Your task to perform on an android device: Empty the shopping cart on amazon.com. Search for macbook pro on amazon.com, select the first entry, and add it to the cart. Image 0: 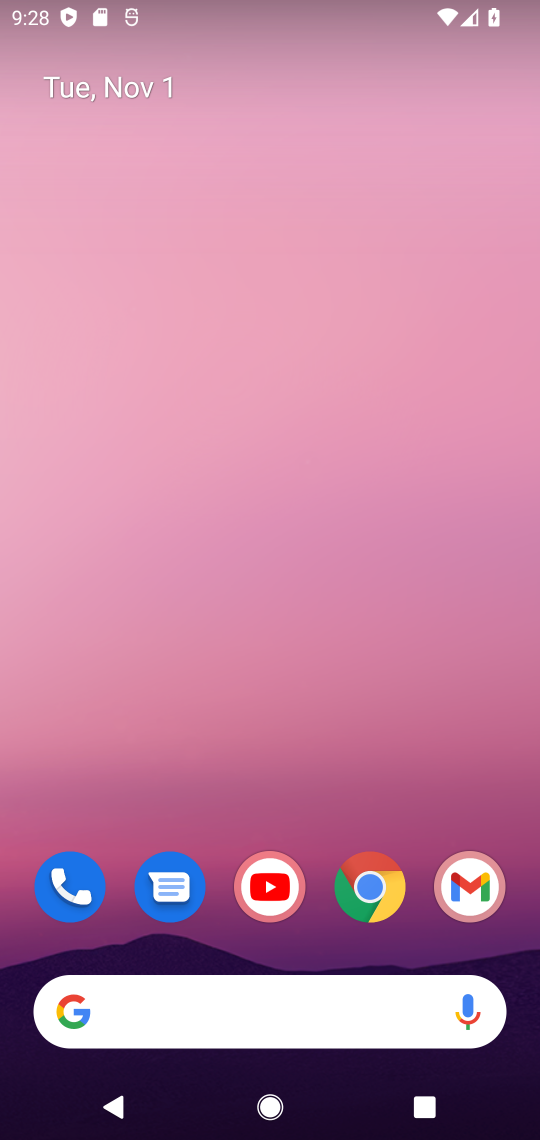
Step 0: click (379, 884)
Your task to perform on an android device: Empty the shopping cart on amazon.com. Search for macbook pro on amazon.com, select the first entry, and add it to the cart. Image 1: 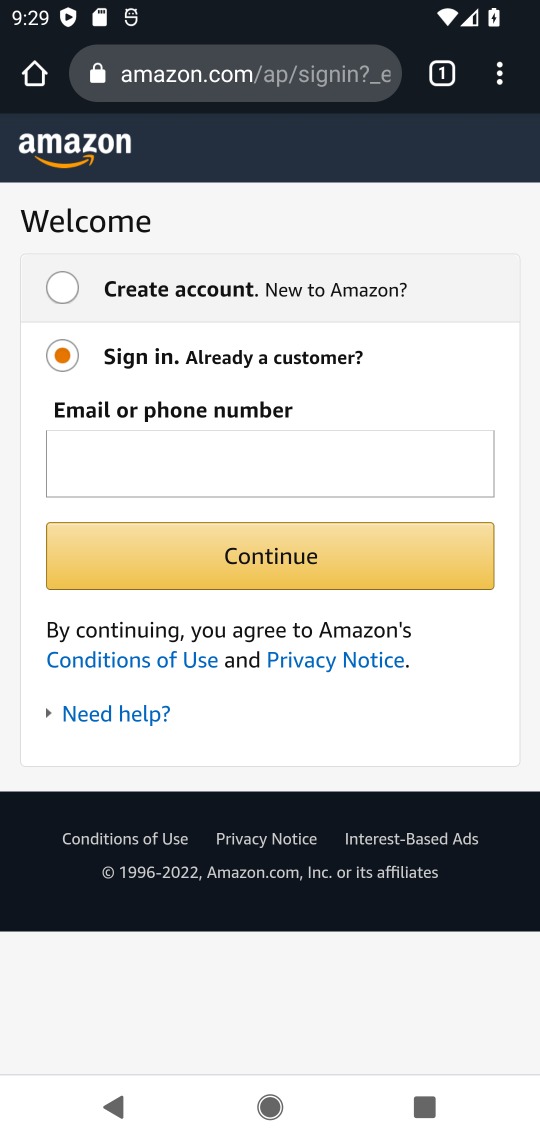
Step 1: click (251, 85)
Your task to perform on an android device: Empty the shopping cart on amazon.com. Search for macbook pro on amazon.com, select the first entry, and add it to the cart. Image 2: 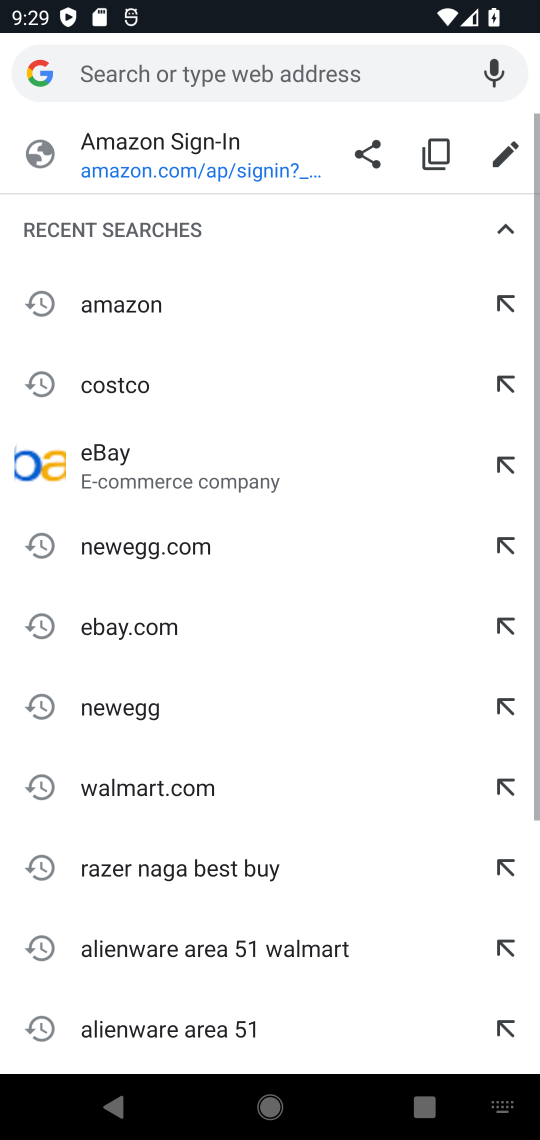
Step 2: click (232, 139)
Your task to perform on an android device: Empty the shopping cart on amazon.com. Search for macbook pro on amazon.com, select the first entry, and add it to the cart. Image 3: 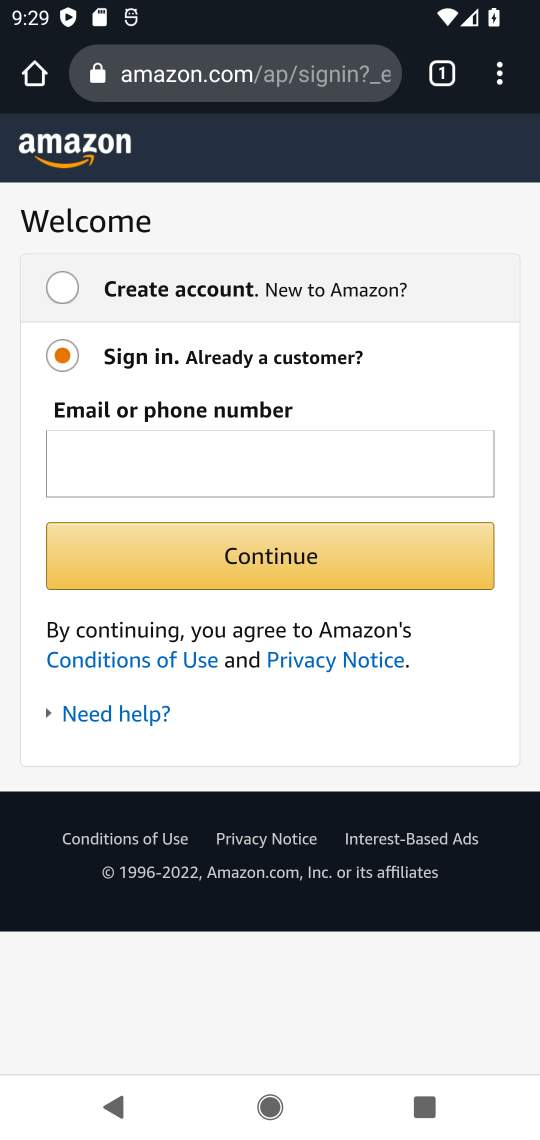
Step 3: press back button
Your task to perform on an android device: Empty the shopping cart on amazon.com. Search for macbook pro on amazon.com, select the first entry, and add it to the cart. Image 4: 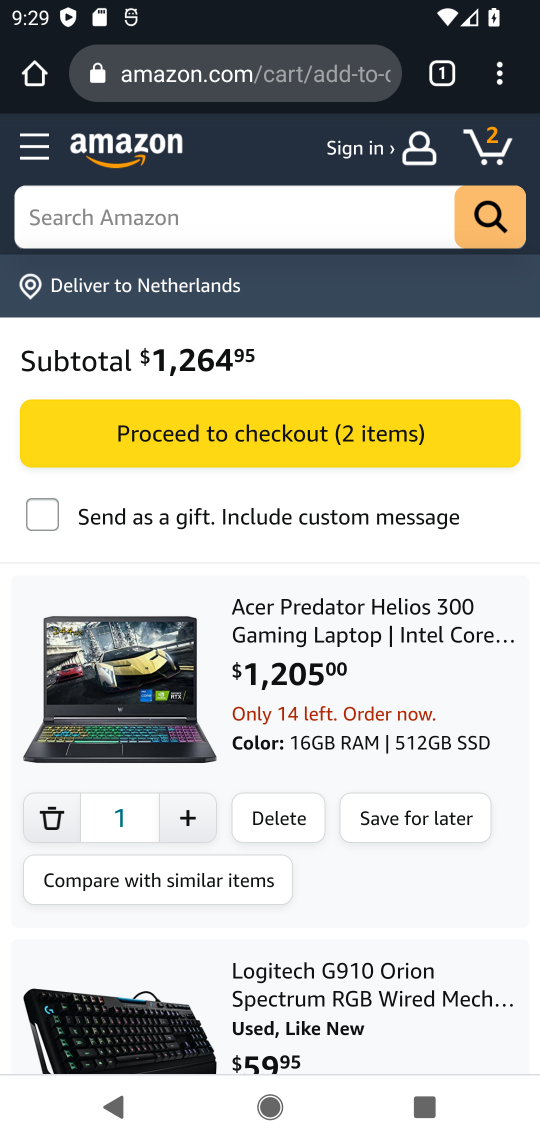
Step 4: click (484, 135)
Your task to perform on an android device: Empty the shopping cart on amazon.com. Search for macbook pro on amazon.com, select the first entry, and add it to the cart. Image 5: 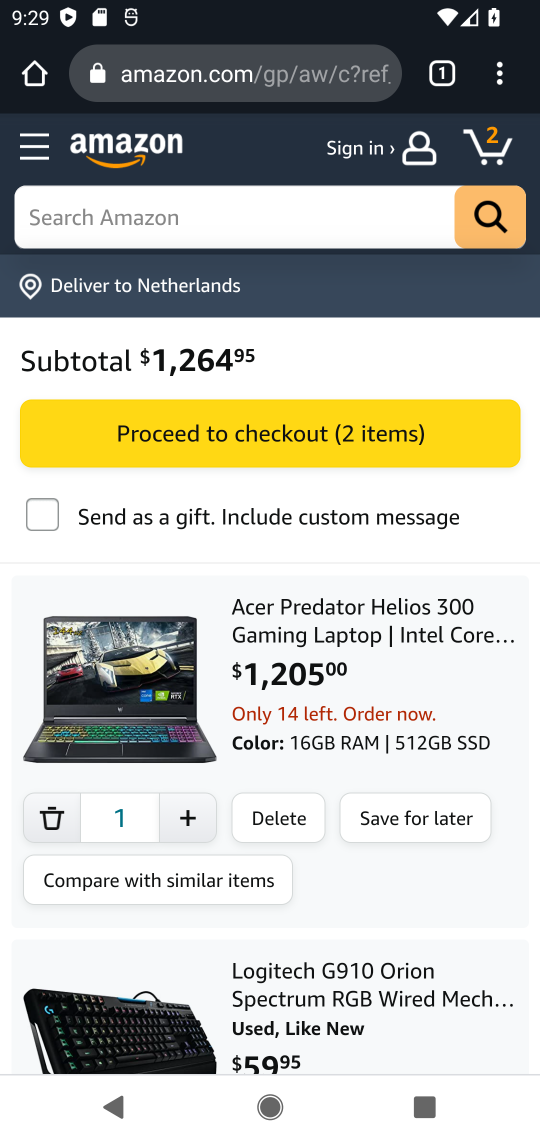
Step 5: click (294, 804)
Your task to perform on an android device: Empty the shopping cart on amazon.com. Search for macbook pro on amazon.com, select the first entry, and add it to the cart. Image 6: 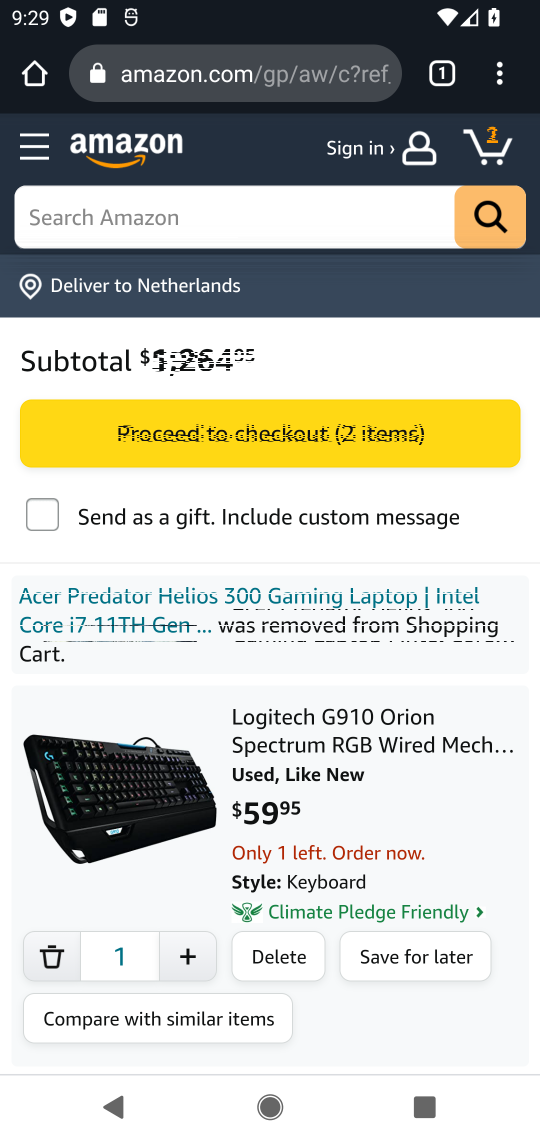
Step 6: click (275, 946)
Your task to perform on an android device: Empty the shopping cart on amazon.com. Search for macbook pro on amazon.com, select the first entry, and add it to the cart. Image 7: 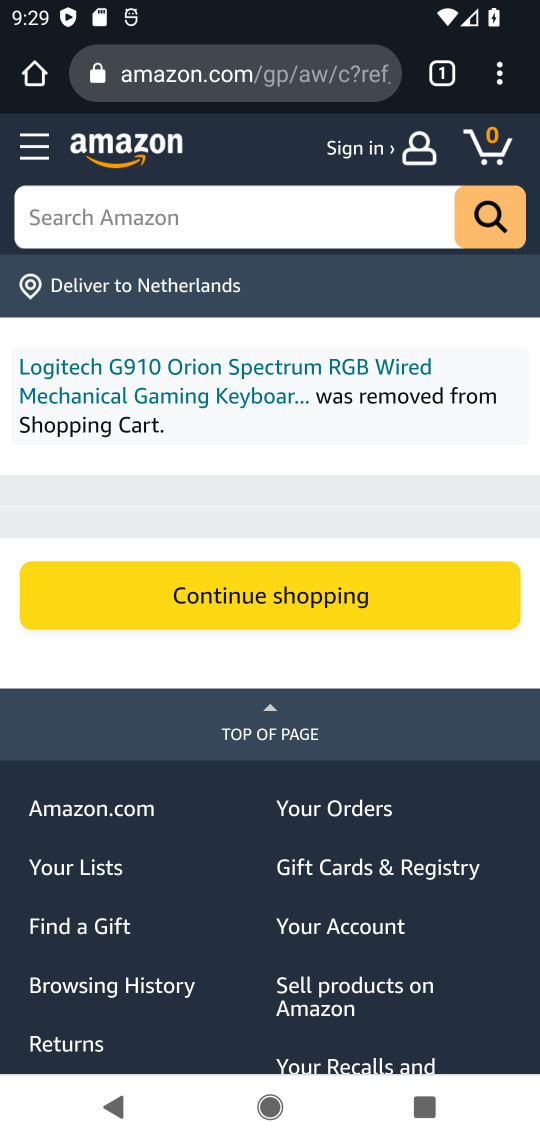
Step 7: click (363, 203)
Your task to perform on an android device: Empty the shopping cart on amazon.com. Search for macbook pro on amazon.com, select the first entry, and add it to the cart. Image 8: 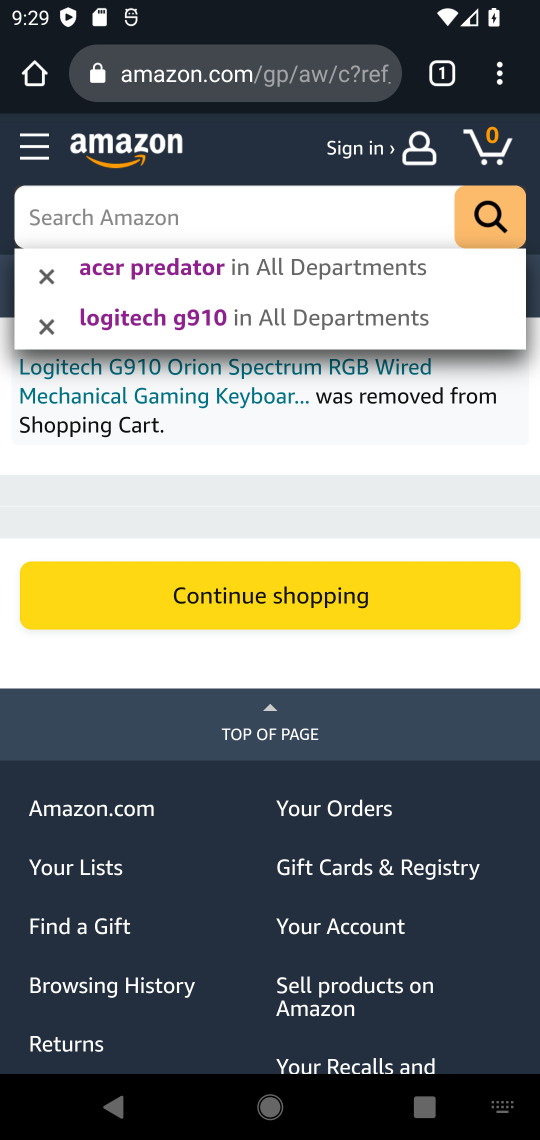
Step 8: type "macbook pro"
Your task to perform on an android device: Empty the shopping cart on amazon.com. Search for macbook pro on amazon.com, select the first entry, and add it to the cart. Image 9: 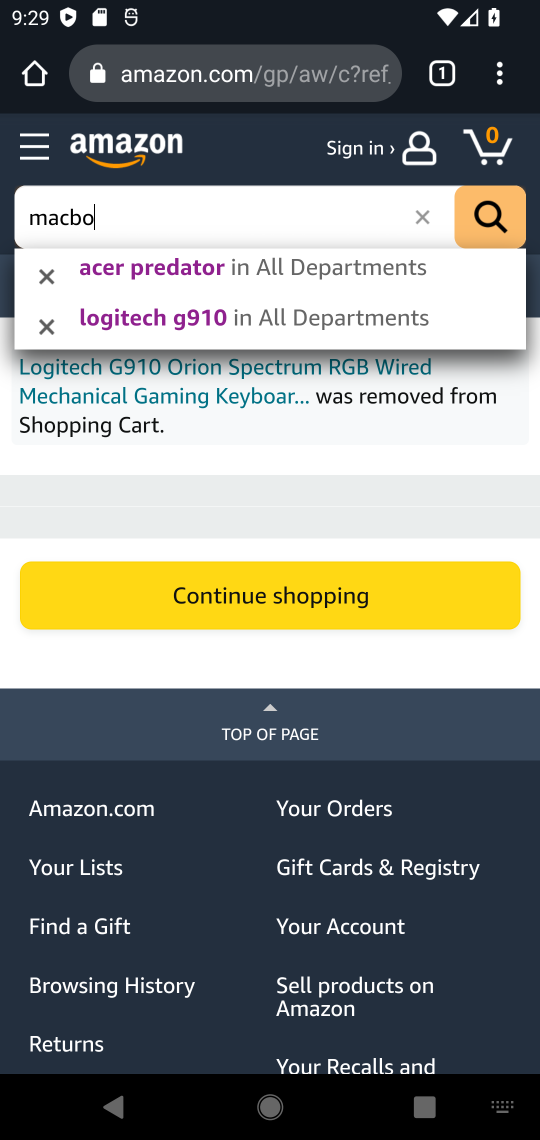
Step 9: press enter
Your task to perform on an android device: Empty the shopping cart on amazon.com. Search for macbook pro on amazon.com, select the first entry, and add it to the cart. Image 10: 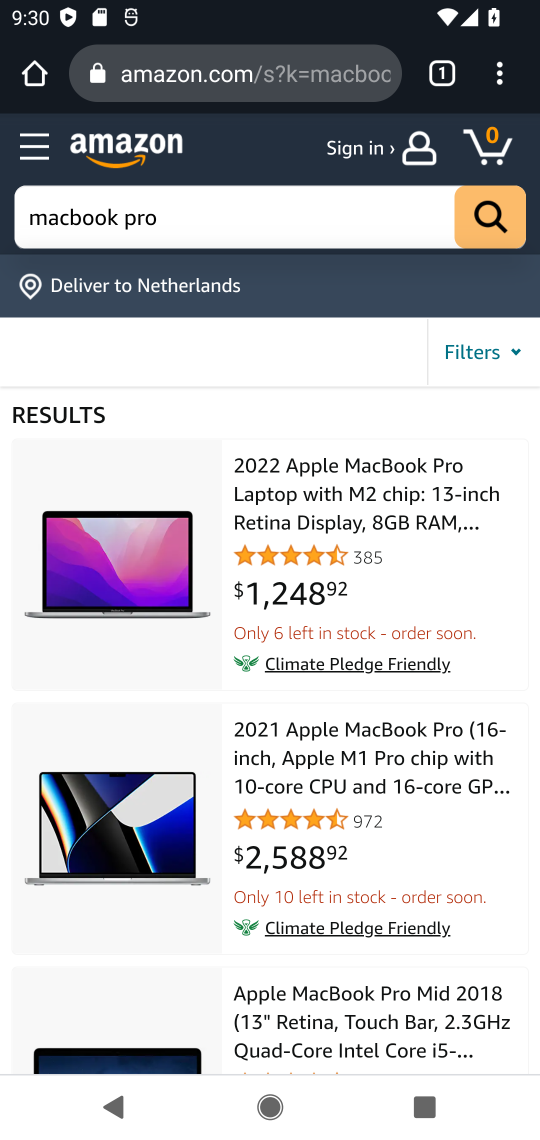
Step 10: click (156, 589)
Your task to perform on an android device: Empty the shopping cart on amazon.com. Search for macbook pro on amazon.com, select the first entry, and add it to the cart. Image 11: 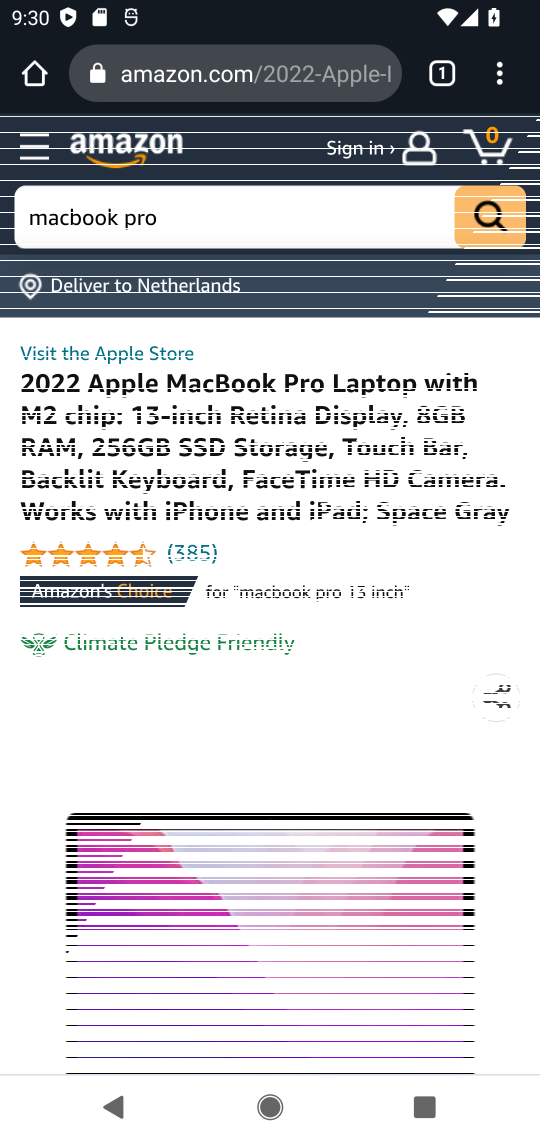
Step 11: drag from (383, 713) to (314, 241)
Your task to perform on an android device: Empty the shopping cart on amazon.com. Search for macbook pro on amazon.com, select the first entry, and add it to the cart. Image 12: 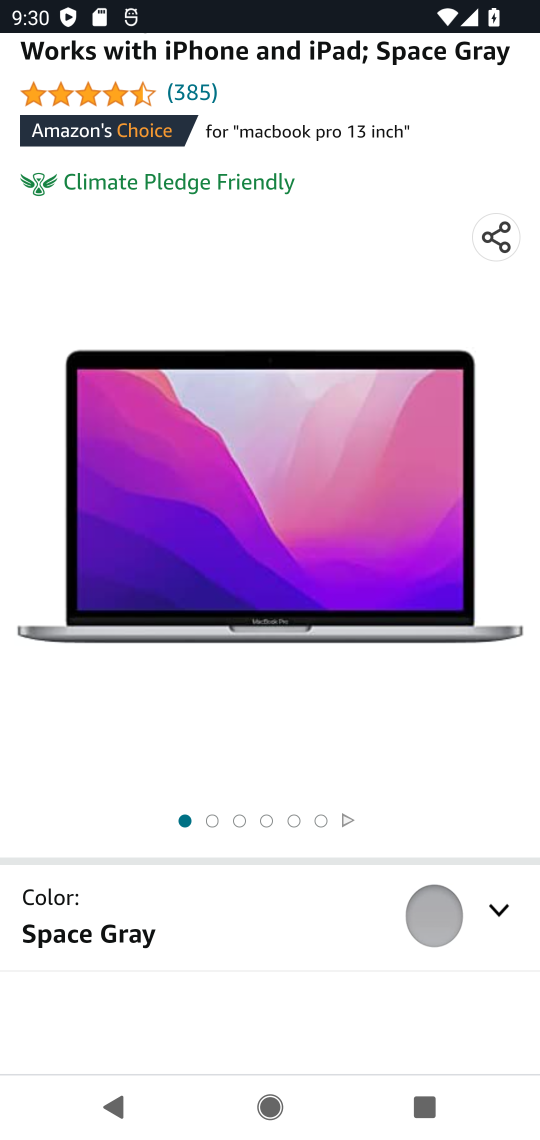
Step 12: drag from (344, 818) to (309, 350)
Your task to perform on an android device: Empty the shopping cart on amazon.com. Search for macbook pro on amazon.com, select the first entry, and add it to the cart. Image 13: 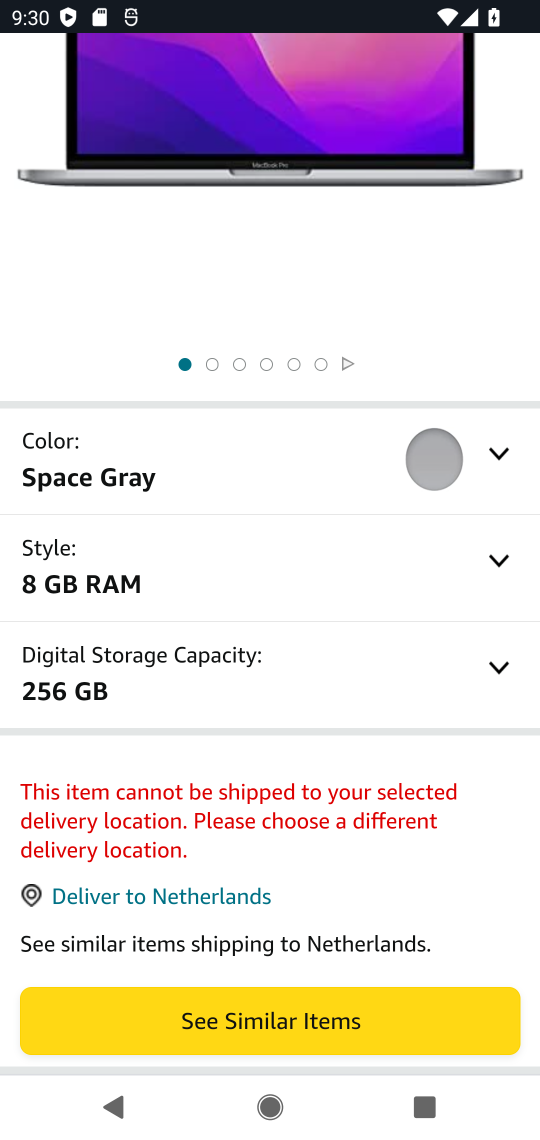
Step 13: drag from (334, 975) to (392, 552)
Your task to perform on an android device: Empty the shopping cart on amazon.com. Search for macbook pro on amazon.com, select the first entry, and add it to the cart. Image 14: 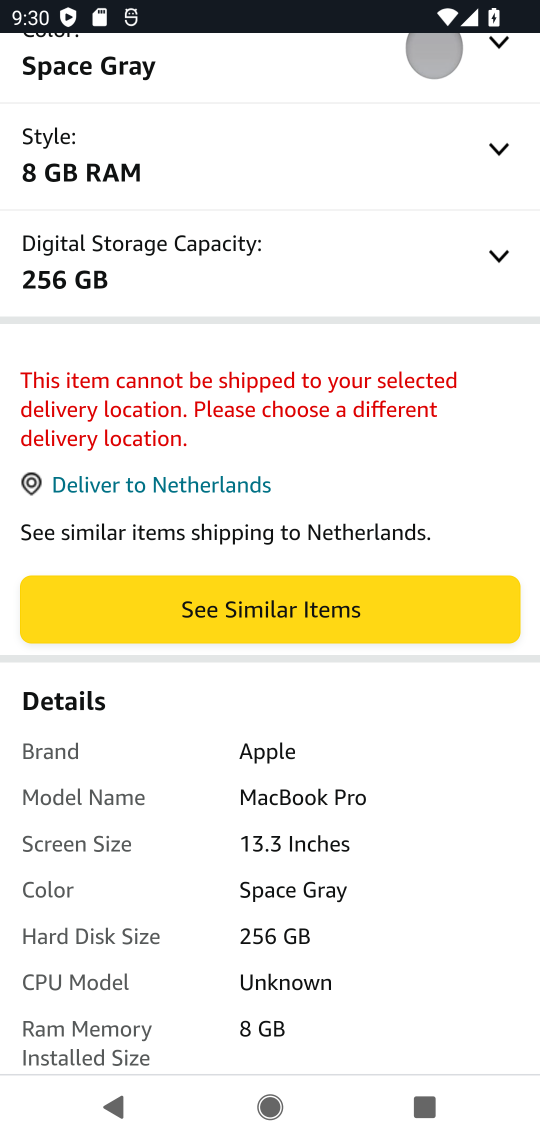
Step 14: drag from (323, 822) to (297, 383)
Your task to perform on an android device: Empty the shopping cart on amazon.com. Search for macbook pro on amazon.com, select the first entry, and add it to the cart. Image 15: 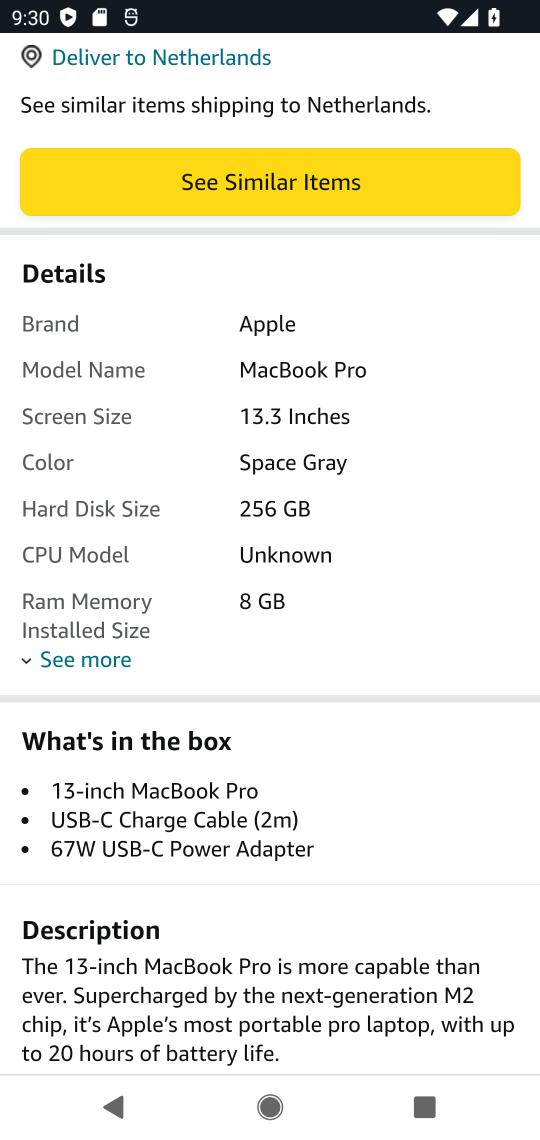
Step 15: drag from (360, 852) to (333, 440)
Your task to perform on an android device: Empty the shopping cart on amazon.com. Search for macbook pro on amazon.com, select the first entry, and add it to the cart. Image 16: 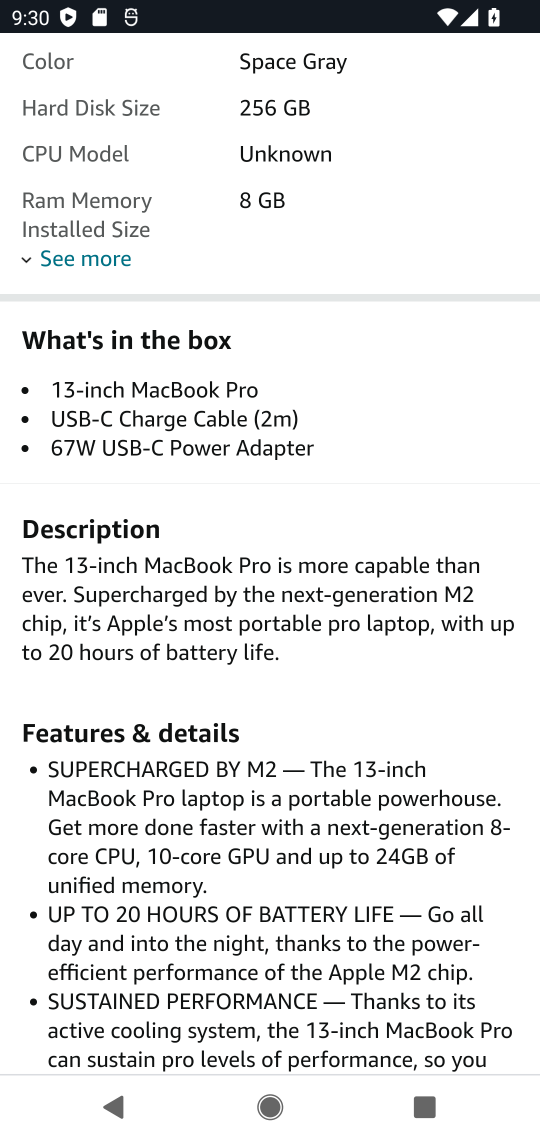
Step 16: drag from (296, 783) to (274, 330)
Your task to perform on an android device: Empty the shopping cart on amazon.com. Search for macbook pro on amazon.com, select the first entry, and add it to the cart. Image 17: 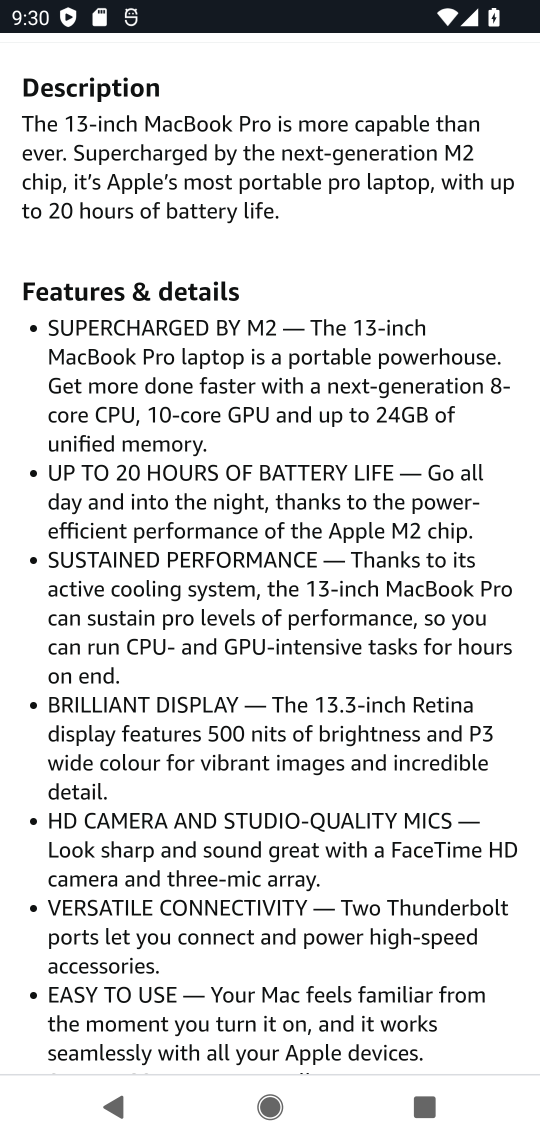
Step 17: drag from (306, 818) to (319, 355)
Your task to perform on an android device: Empty the shopping cart on amazon.com. Search for macbook pro on amazon.com, select the first entry, and add it to the cart. Image 18: 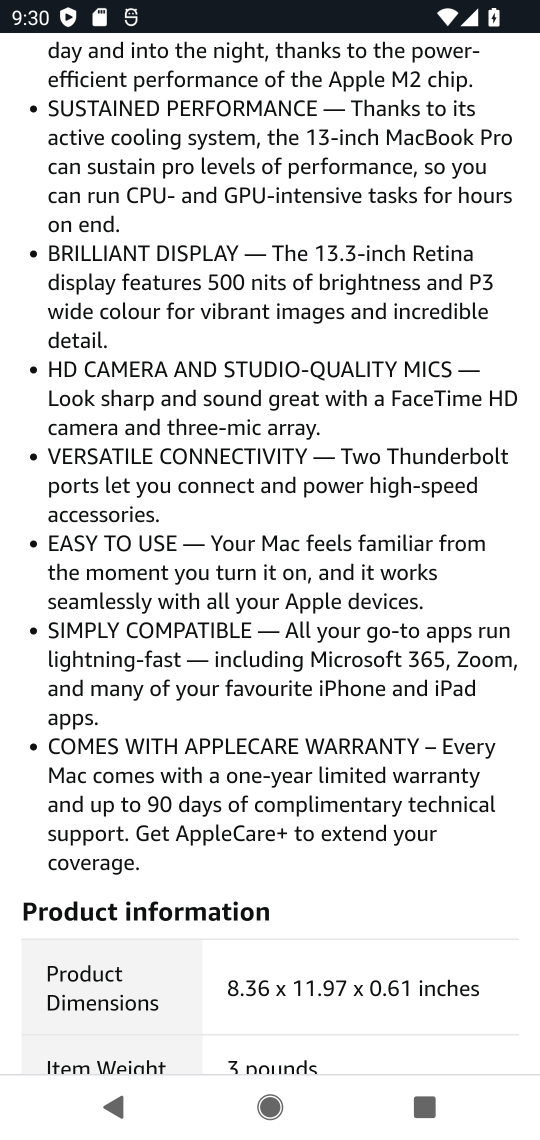
Step 18: drag from (307, 795) to (320, 407)
Your task to perform on an android device: Empty the shopping cart on amazon.com. Search for macbook pro on amazon.com, select the first entry, and add it to the cart. Image 19: 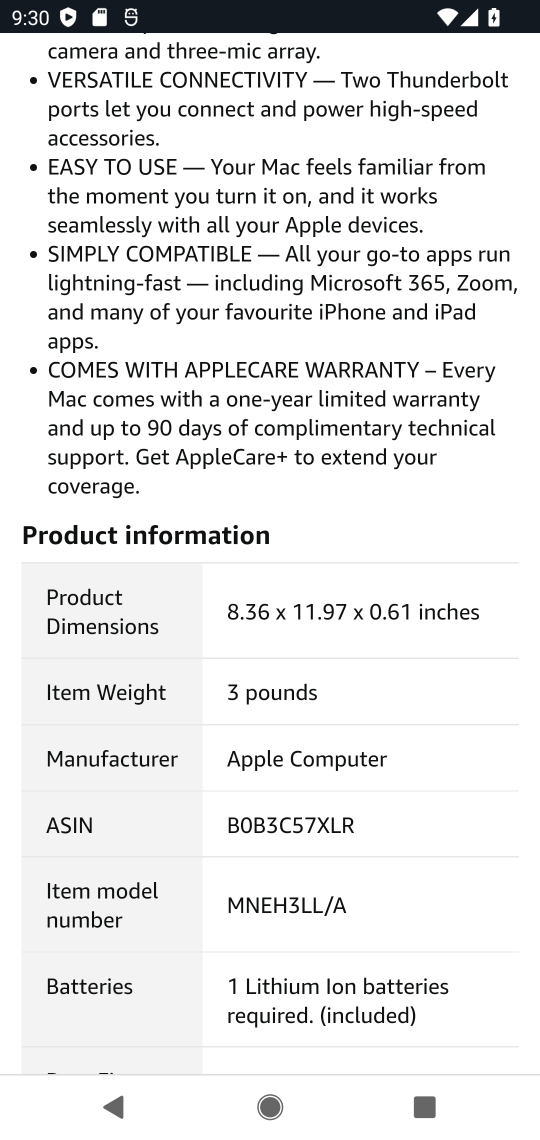
Step 19: drag from (289, 835) to (369, 257)
Your task to perform on an android device: Empty the shopping cart on amazon.com. Search for macbook pro on amazon.com, select the first entry, and add it to the cart. Image 20: 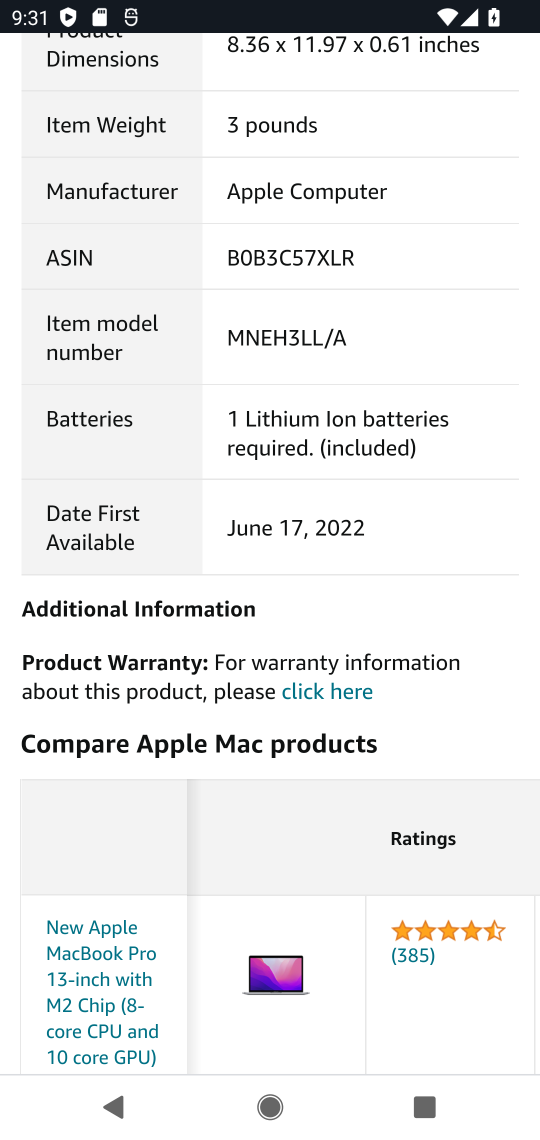
Step 20: drag from (372, 592) to (431, 230)
Your task to perform on an android device: Empty the shopping cart on amazon.com. Search for macbook pro on amazon.com, select the first entry, and add it to the cart. Image 21: 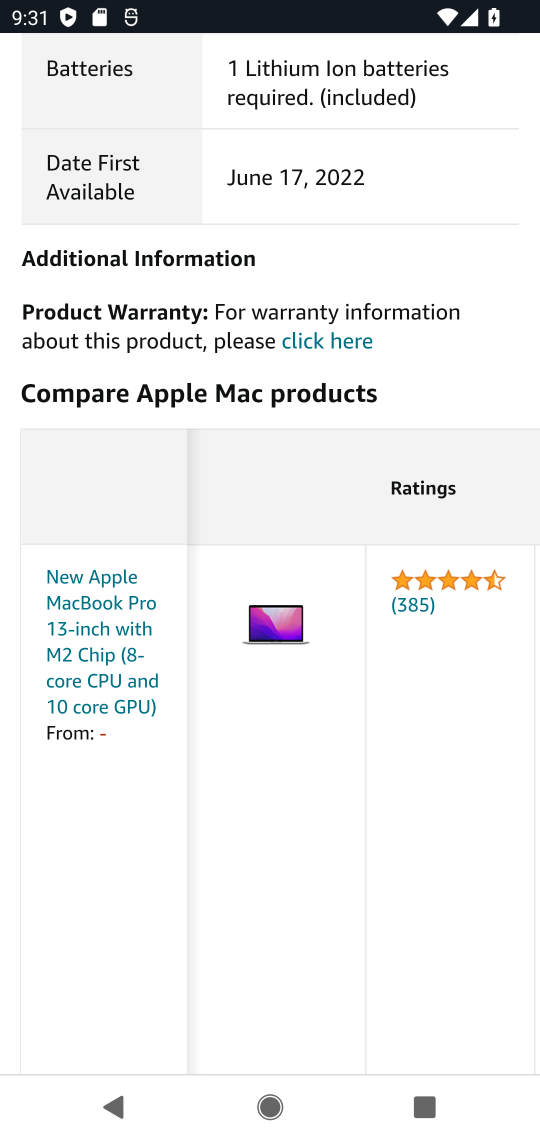
Step 21: drag from (336, 252) to (396, 793)
Your task to perform on an android device: Empty the shopping cart on amazon.com. Search for macbook pro on amazon.com, select the first entry, and add it to the cart. Image 22: 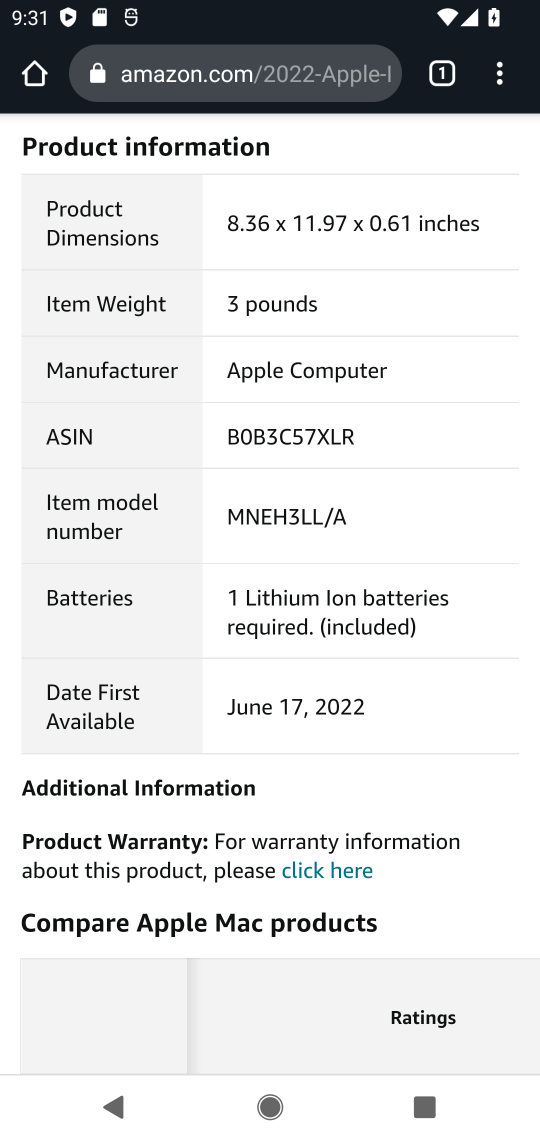
Step 22: drag from (370, 347) to (431, 744)
Your task to perform on an android device: Empty the shopping cart on amazon.com. Search for macbook pro on amazon.com, select the first entry, and add it to the cart. Image 23: 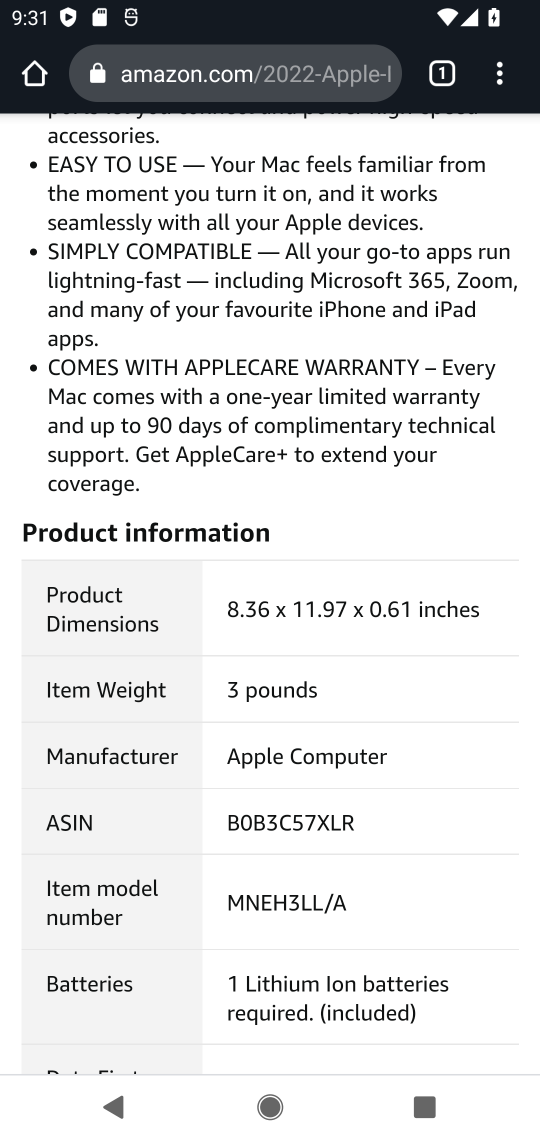
Step 23: drag from (243, 378) to (357, 811)
Your task to perform on an android device: Empty the shopping cart on amazon.com. Search for macbook pro on amazon.com, select the first entry, and add it to the cart. Image 24: 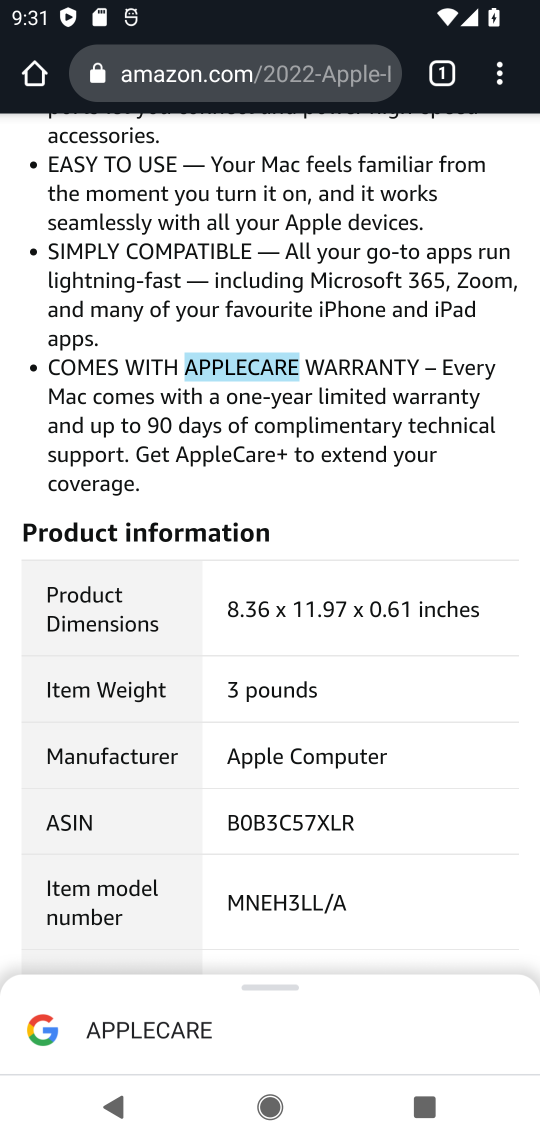
Step 24: drag from (332, 446) to (412, 807)
Your task to perform on an android device: Empty the shopping cart on amazon.com. Search for macbook pro on amazon.com, select the first entry, and add it to the cart. Image 25: 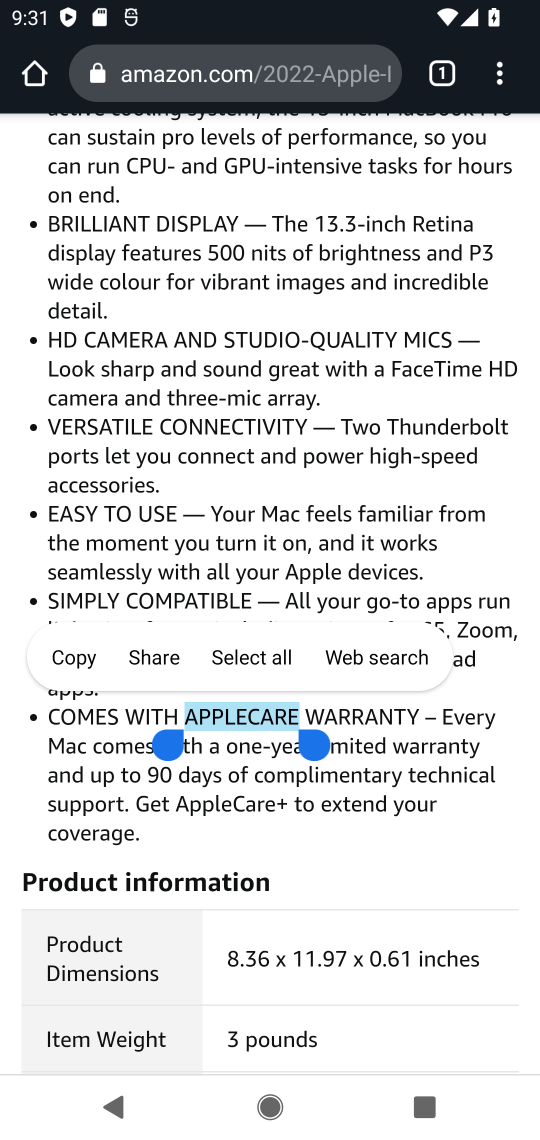
Step 25: drag from (309, 277) to (379, 782)
Your task to perform on an android device: Empty the shopping cart on amazon.com. Search for macbook pro on amazon.com, select the first entry, and add it to the cart. Image 26: 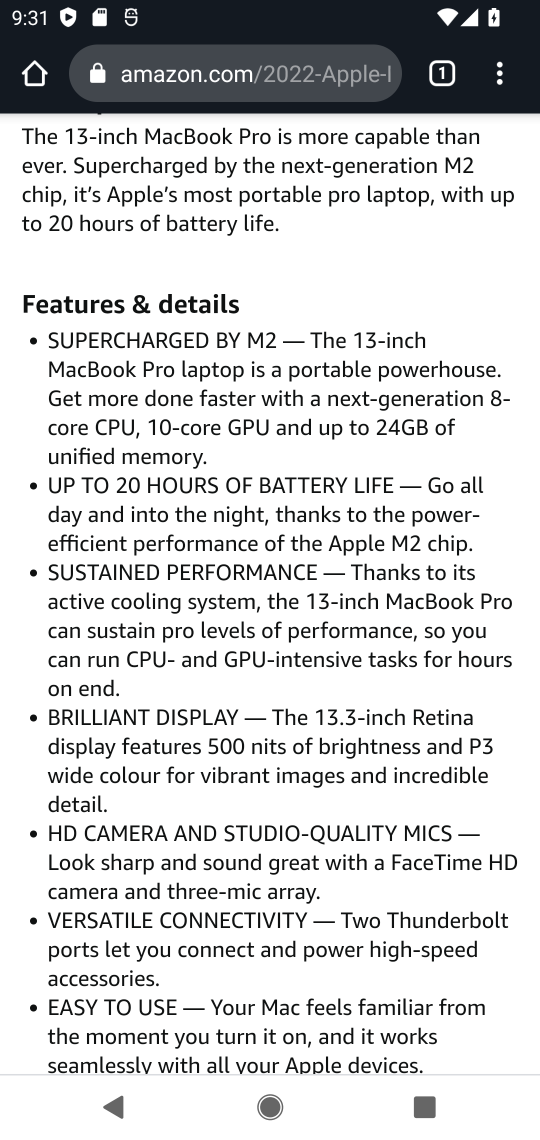
Step 26: drag from (357, 268) to (382, 618)
Your task to perform on an android device: Empty the shopping cart on amazon.com. Search for macbook pro on amazon.com, select the first entry, and add it to the cart. Image 27: 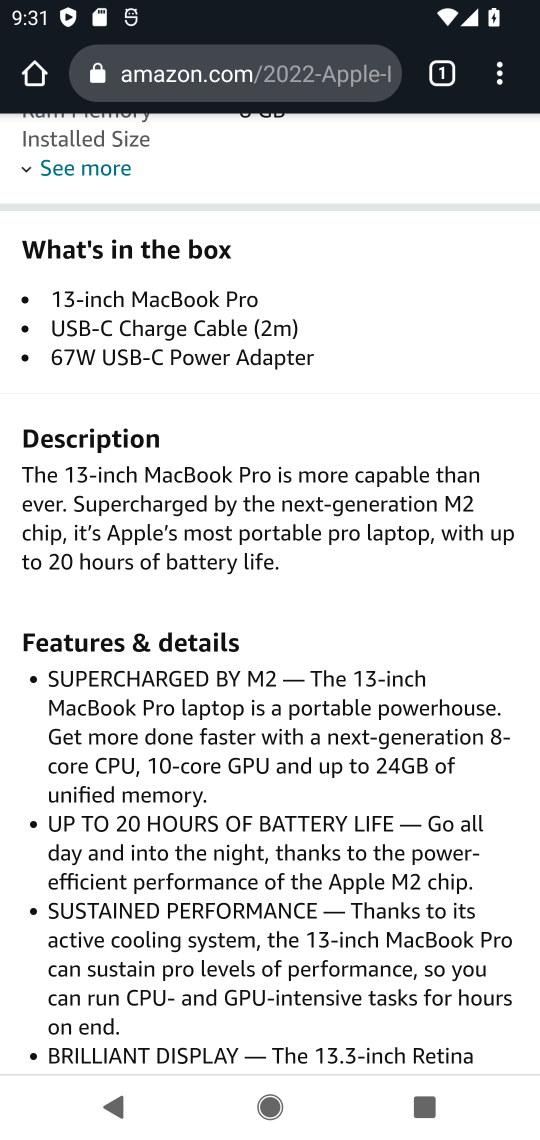
Step 27: drag from (361, 404) to (448, 842)
Your task to perform on an android device: Empty the shopping cart on amazon.com. Search for macbook pro on amazon.com, select the first entry, and add it to the cart. Image 28: 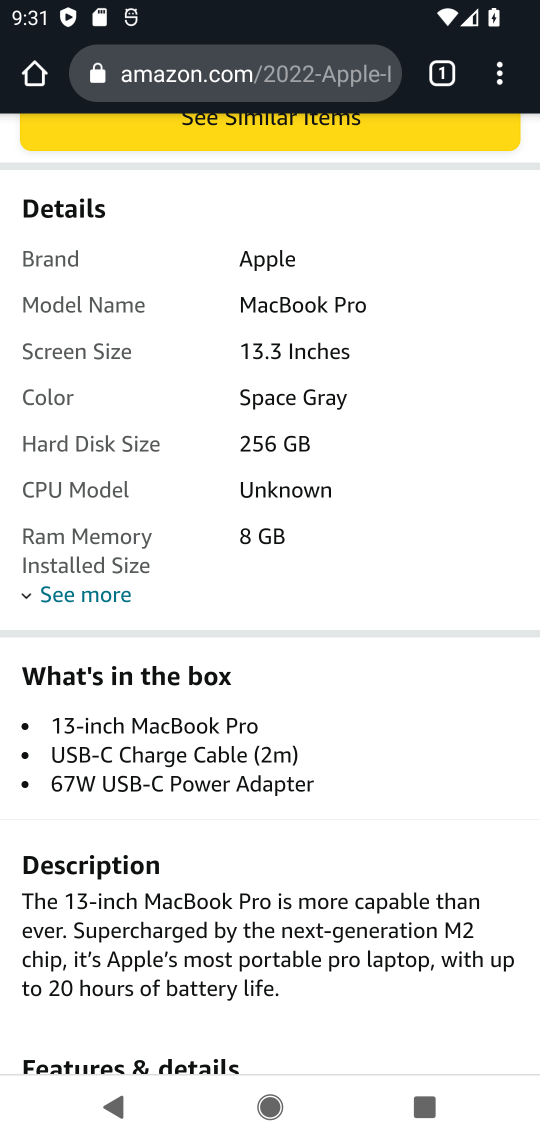
Step 28: drag from (336, 285) to (283, 730)
Your task to perform on an android device: Empty the shopping cart on amazon.com. Search for macbook pro on amazon.com, select the first entry, and add it to the cart. Image 29: 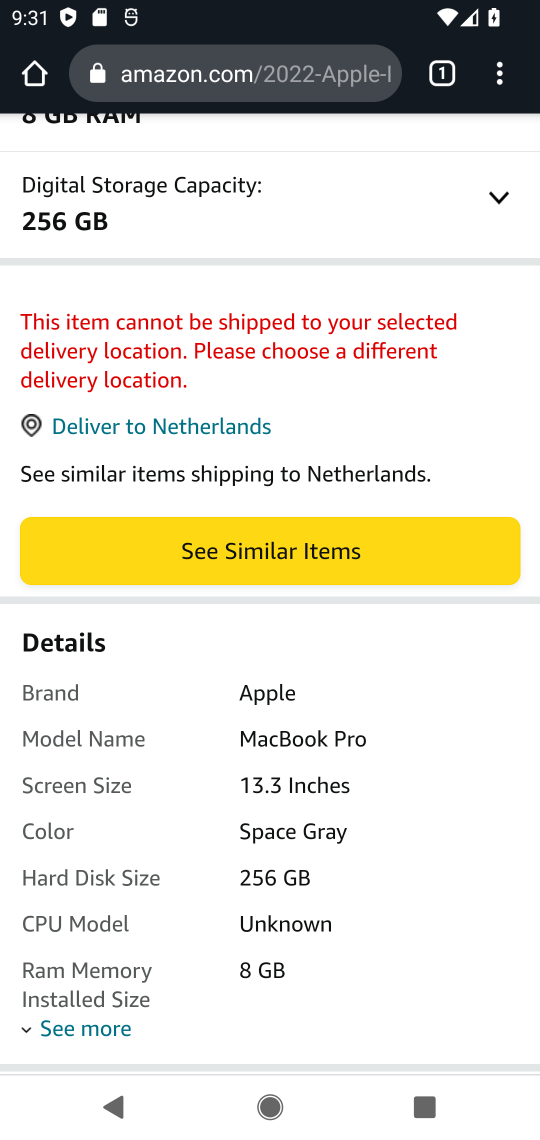
Step 29: drag from (368, 358) to (354, 850)
Your task to perform on an android device: Empty the shopping cart on amazon.com. Search for macbook pro on amazon.com, select the first entry, and add it to the cart. Image 30: 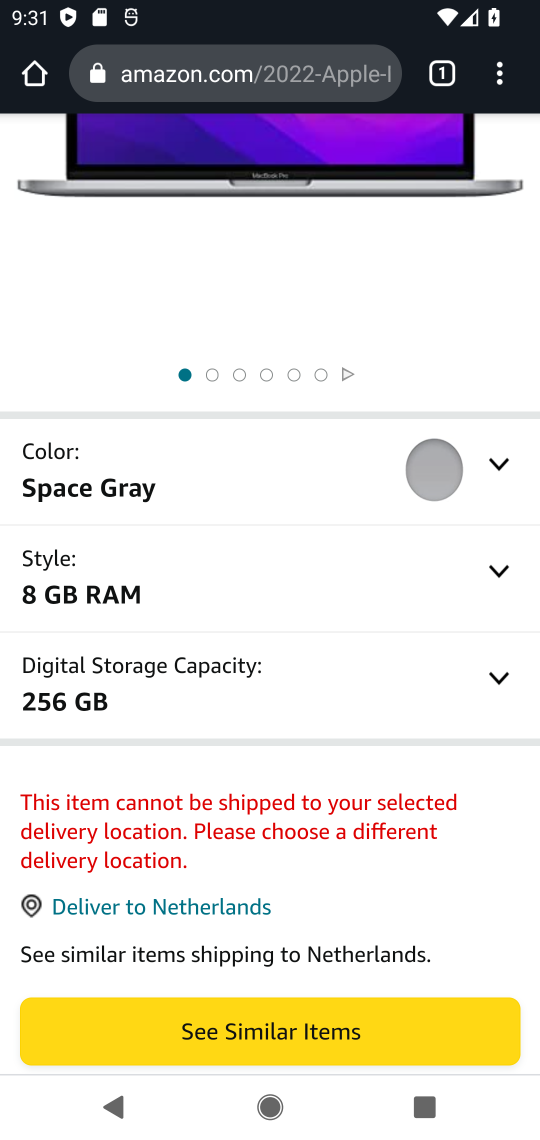
Step 30: drag from (376, 272) to (389, 900)
Your task to perform on an android device: Empty the shopping cart on amazon.com. Search for macbook pro on amazon.com, select the first entry, and add it to the cart. Image 31: 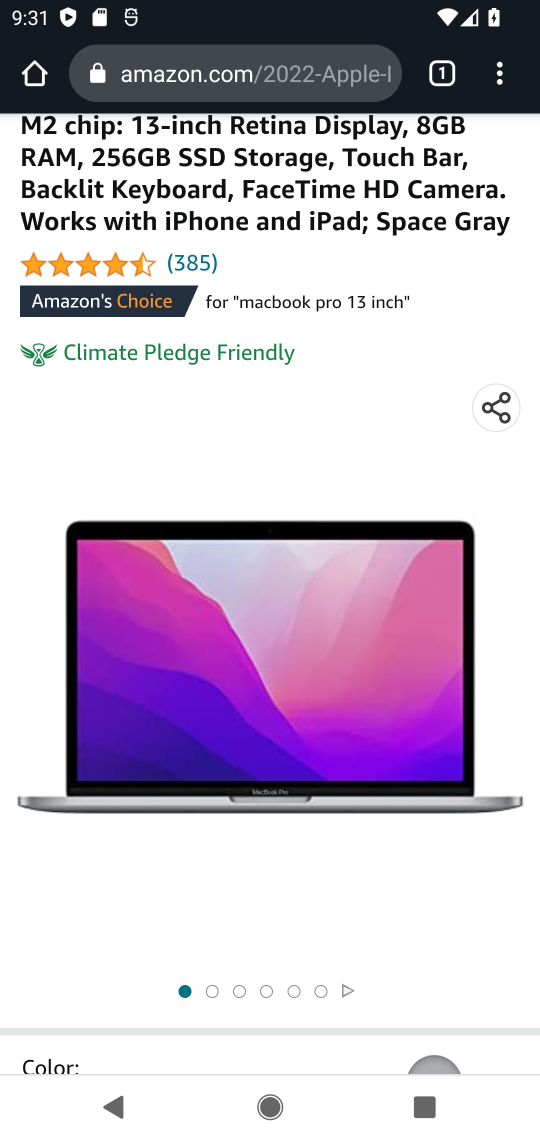
Step 31: drag from (383, 252) to (313, 1031)
Your task to perform on an android device: Empty the shopping cart on amazon.com. Search for macbook pro on amazon.com, select the first entry, and add it to the cart. Image 32: 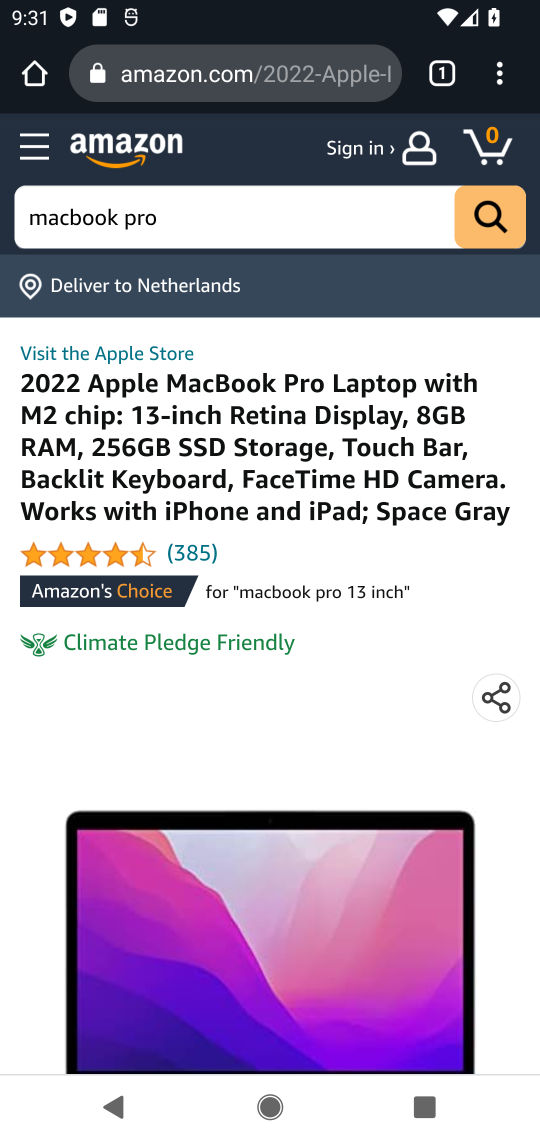
Step 32: press back button
Your task to perform on an android device: Empty the shopping cart on amazon.com. Search for macbook pro on amazon.com, select the first entry, and add it to the cart. Image 33: 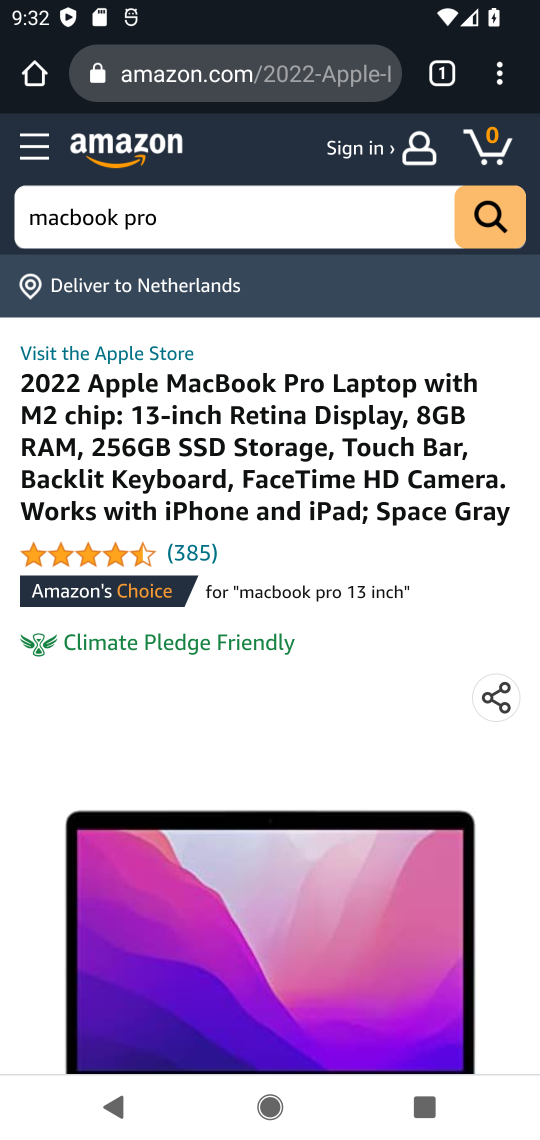
Step 33: press back button
Your task to perform on an android device: Empty the shopping cart on amazon.com. Search for macbook pro on amazon.com, select the first entry, and add it to the cart. Image 34: 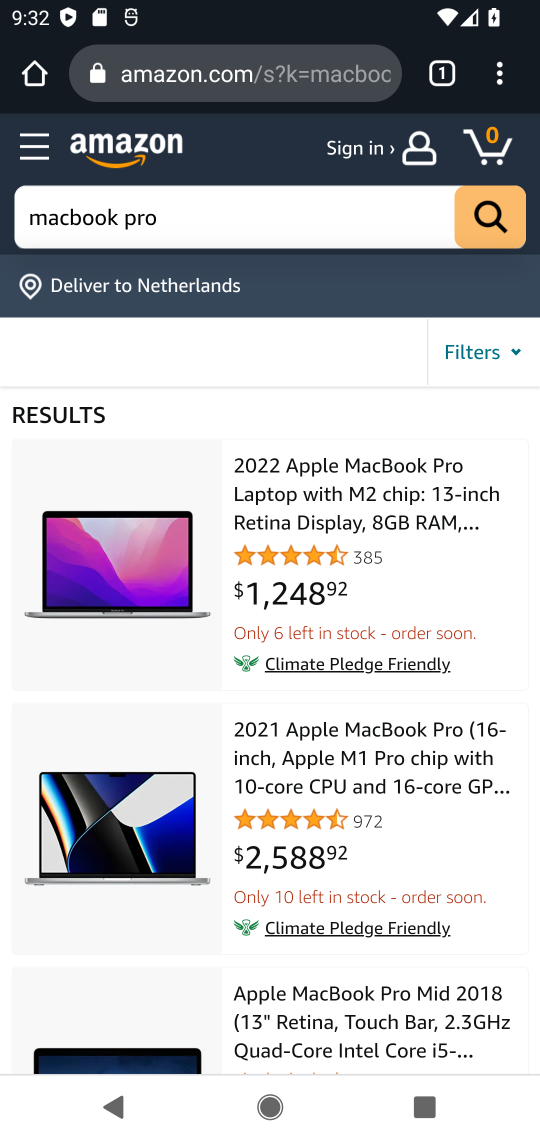
Step 34: click (171, 854)
Your task to perform on an android device: Empty the shopping cart on amazon.com. Search for macbook pro on amazon.com, select the first entry, and add it to the cart. Image 35: 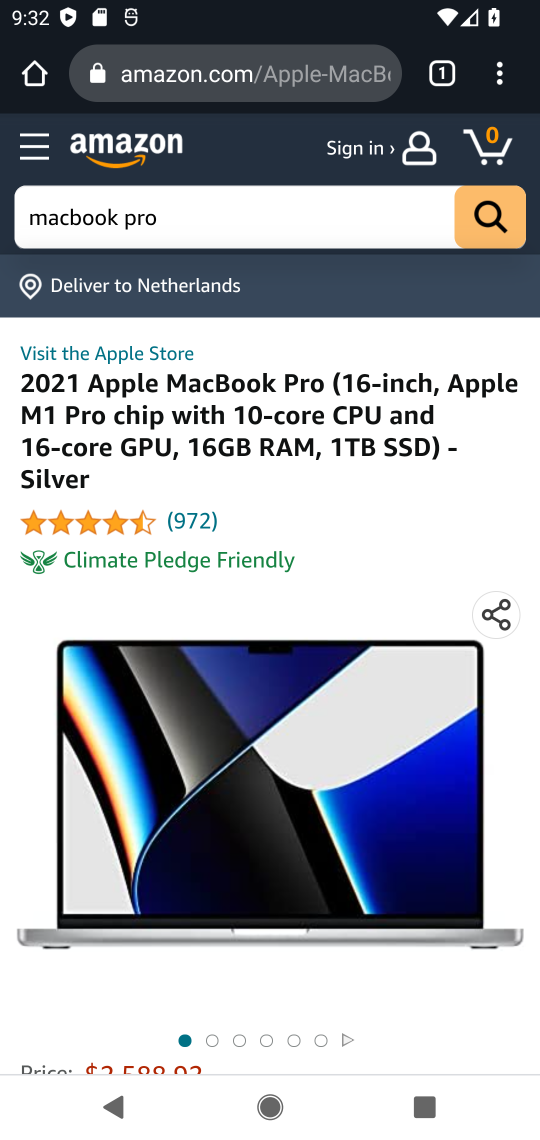
Step 35: drag from (362, 878) to (409, 185)
Your task to perform on an android device: Empty the shopping cart on amazon.com. Search for macbook pro on amazon.com, select the first entry, and add it to the cart. Image 36: 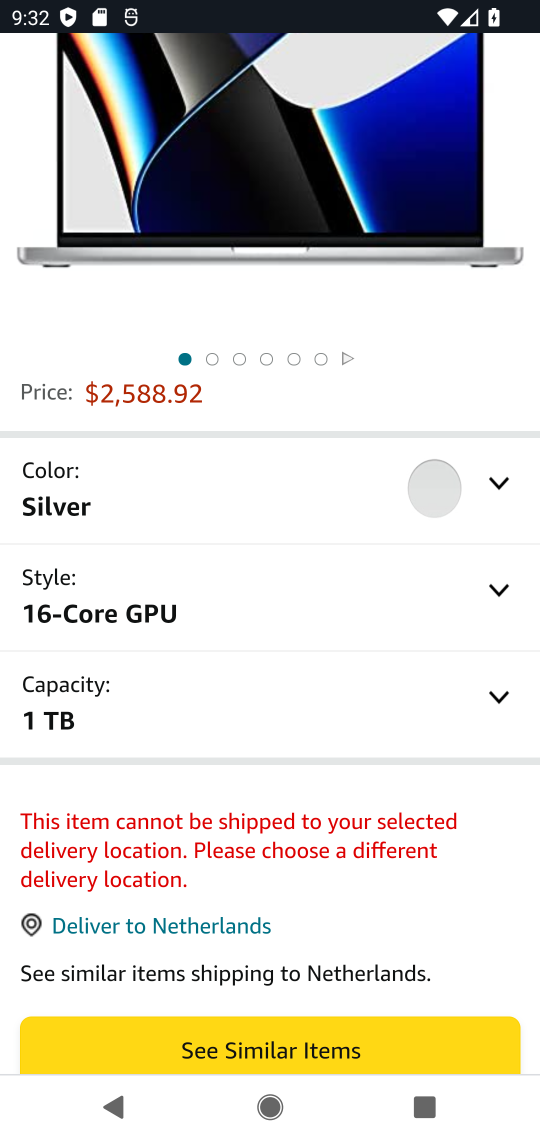
Step 36: drag from (286, 903) to (282, 397)
Your task to perform on an android device: Empty the shopping cart on amazon.com. Search for macbook pro on amazon.com, select the first entry, and add it to the cart. Image 37: 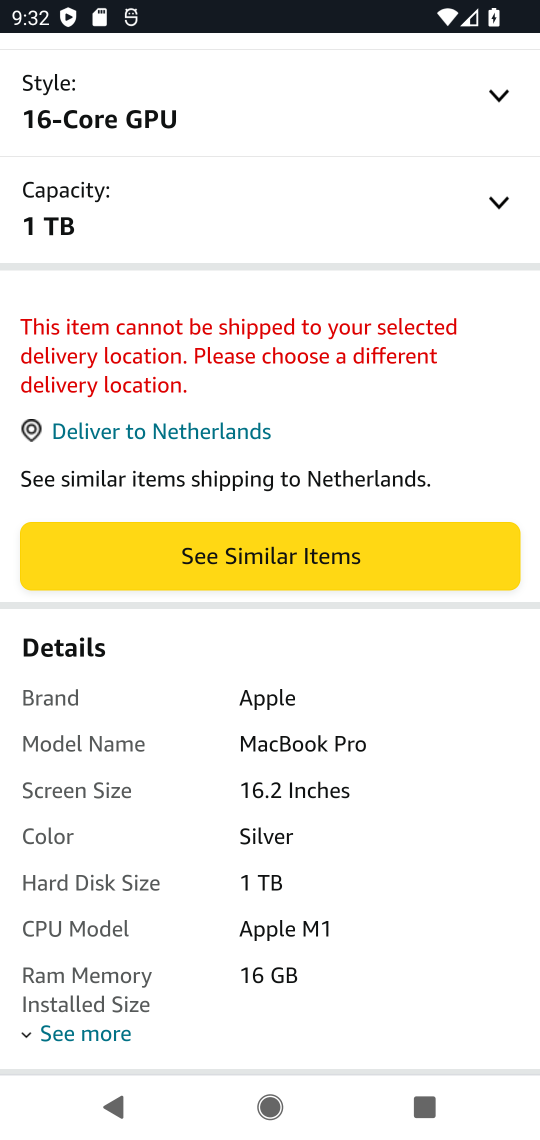
Step 37: drag from (389, 824) to (360, 145)
Your task to perform on an android device: Empty the shopping cart on amazon.com. Search for macbook pro on amazon.com, select the first entry, and add it to the cart. Image 38: 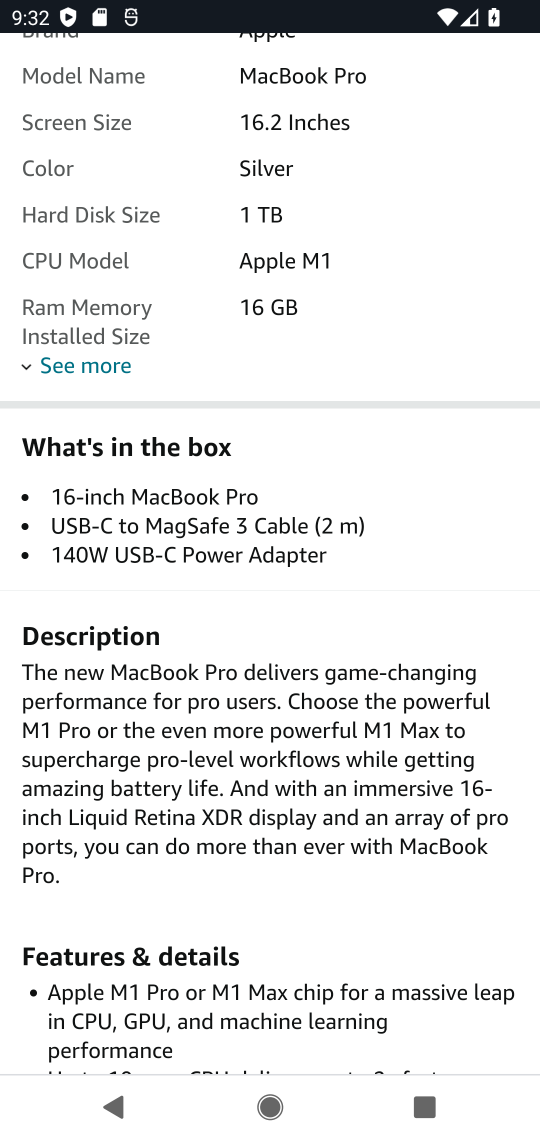
Step 38: press back button
Your task to perform on an android device: Empty the shopping cart on amazon.com. Search for macbook pro on amazon.com, select the first entry, and add it to the cart. Image 39: 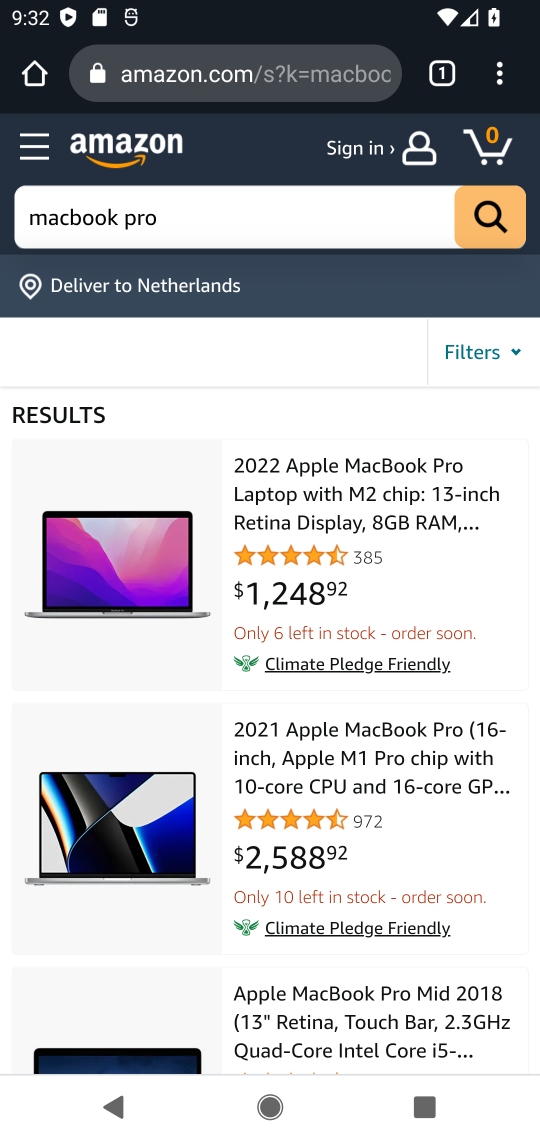
Step 39: drag from (354, 917) to (372, 440)
Your task to perform on an android device: Empty the shopping cart on amazon.com. Search for macbook pro on amazon.com, select the first entry, and add it to the cart. Image 40: 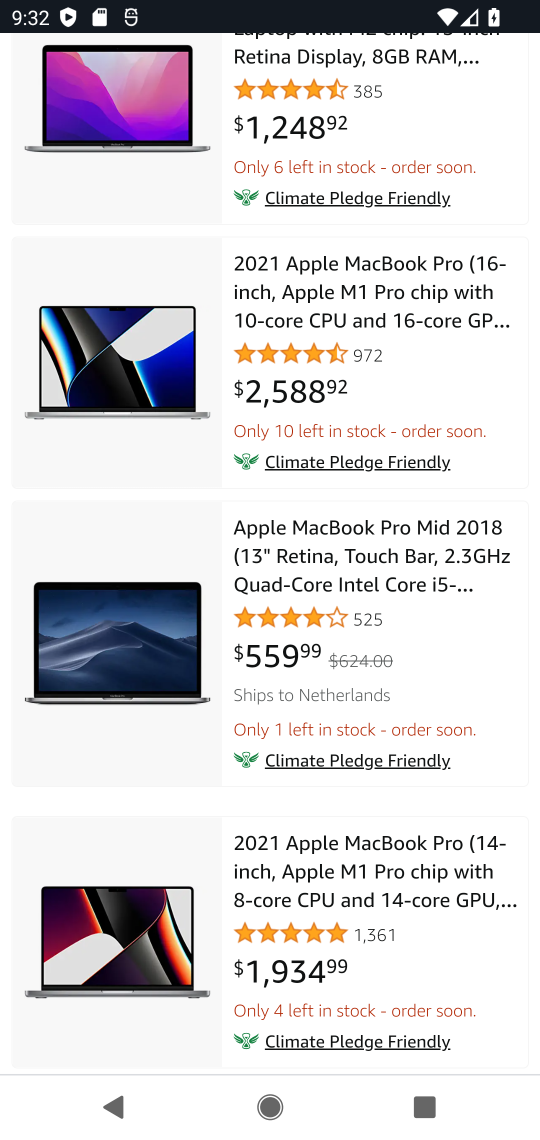
Step 40: click (143, 664)
Your task to perform on an android device: Empty the shopping cart on amazon.com. Search for macbook pro on amazon.com, select the first entry, and add it to the cart. Image 41: 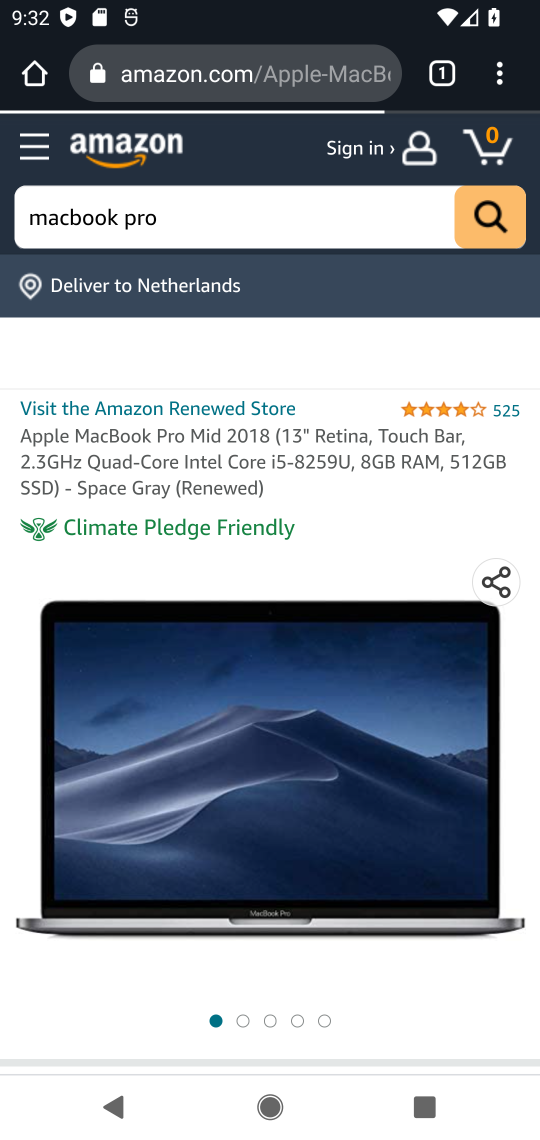
Step 41: drag from (330, 838) to (317, 342)
Your task to perform on an android device: Empty the shopping cart on amazon.com. Search for macbook pro on amazon.com, select the first entry, and add it to the cart. Image 42: 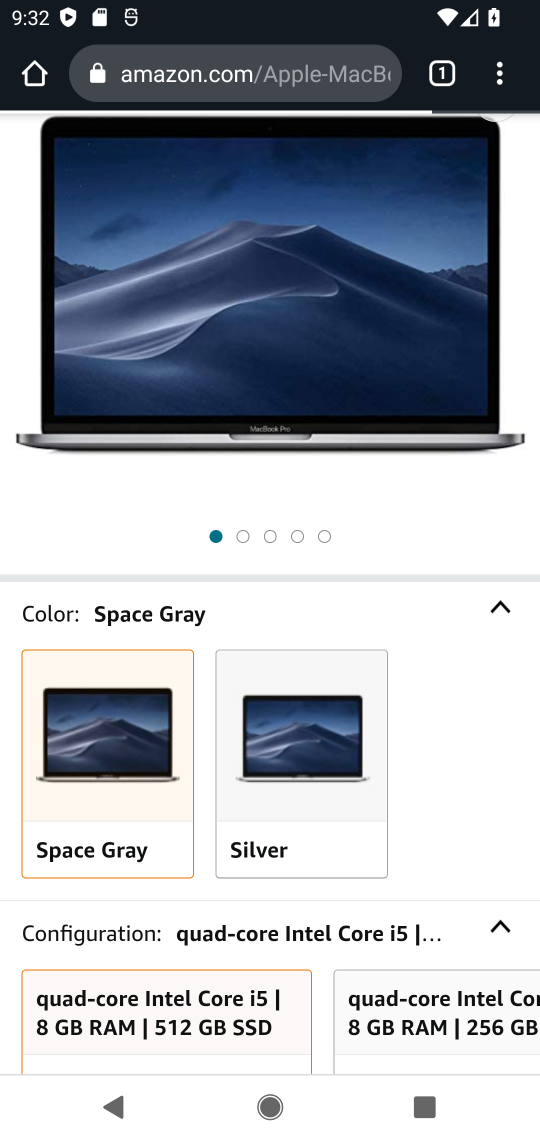
Step 42: drag from (367, 733) to (386, 325)
Your task to perform on an android device: Empty the shopping cart on amazon.com. Search for macbook pro on amazon.com, select the first entry, and add it to the cart. Image 43: 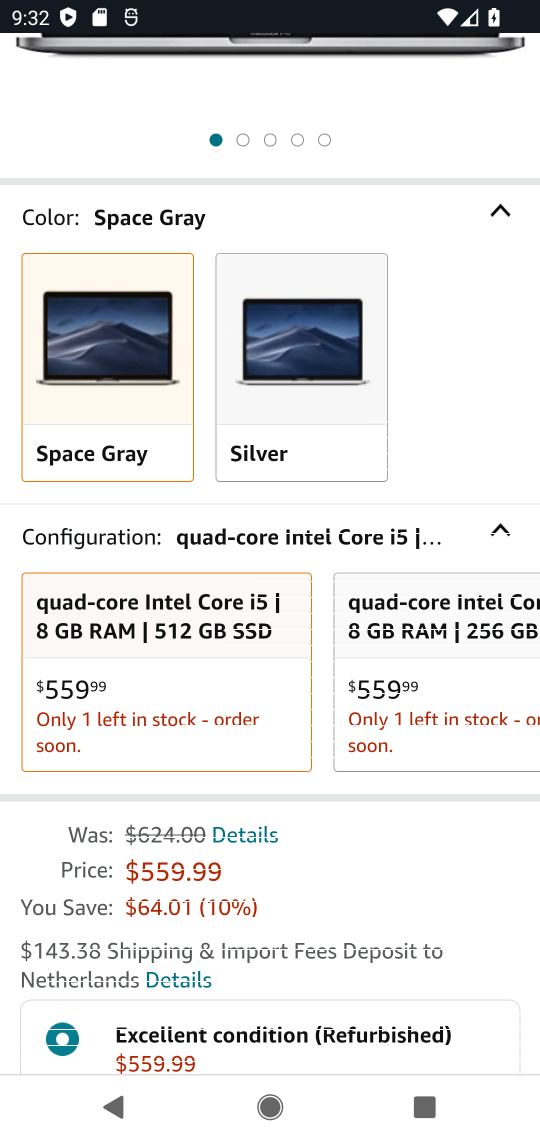
Step 43: drag from (286, 770) to (356, 299)
Your task to perform on an android device: Empty the shopping cart on amazon.com. Search for macbook pro on amazon.com, select the first entry, and add it to the cart. Image 44: 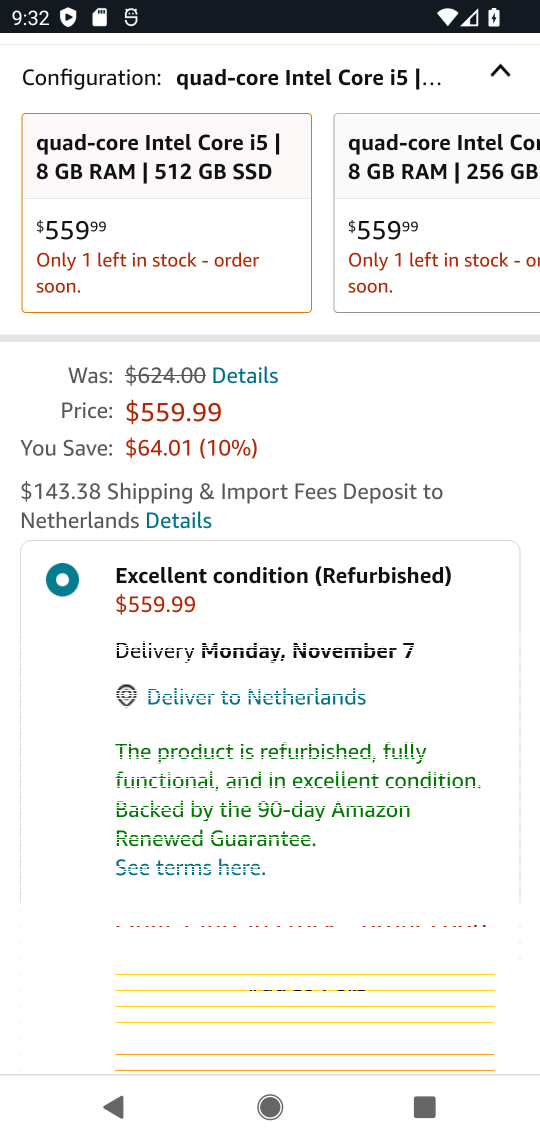
Step 44: click (323, 1000)
Your task to perform on an android device: Empty the shopping cart on amazon.com. Search for macbook pro on amazon.com, select the first entry, and add it to the cart. Image 45: 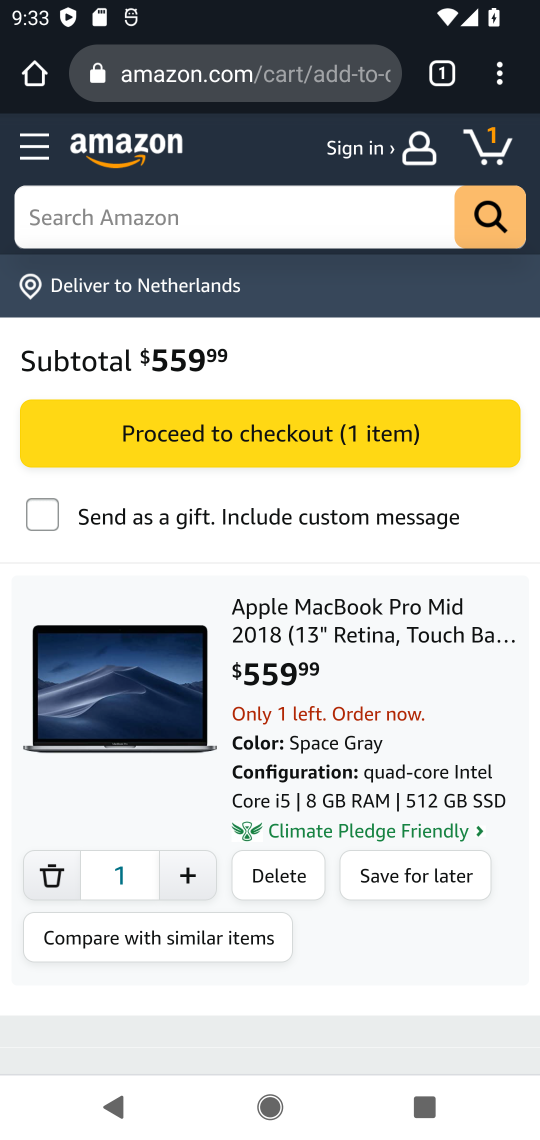
Step 45: task complete